Your task to perform on an android device: turn off location history Image 0: 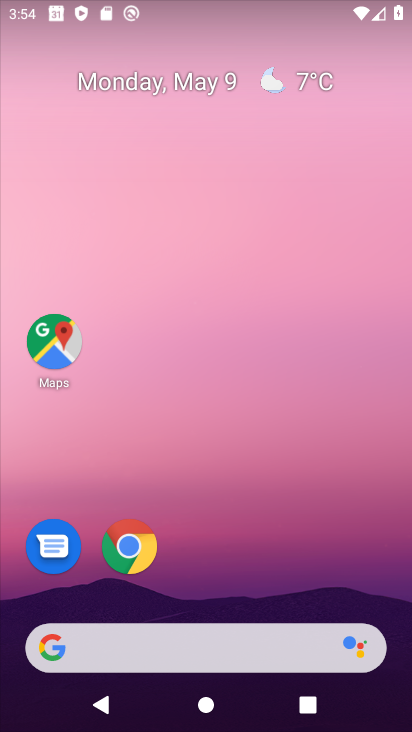
Step 0: drag from (209, 608) to (258, 178)
Your task to perform on an android device: turn off location history Image 1: 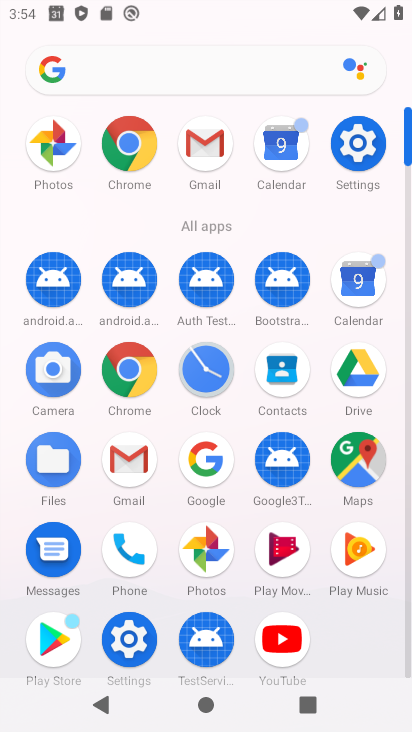
Step 1: click (139, 642)
Your task to perform on an android device: turn off location history Image 2: 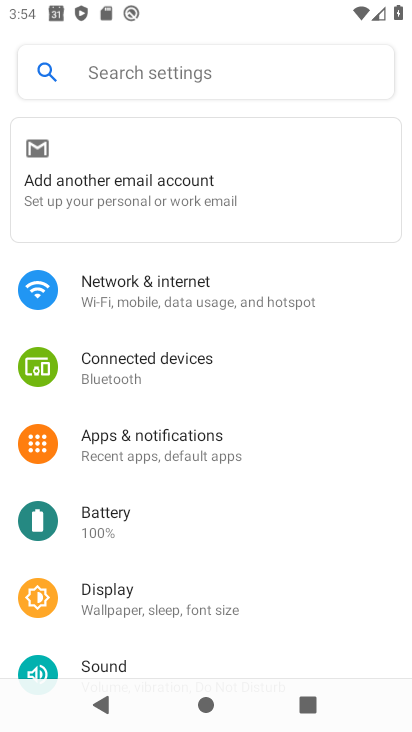
Step 2: drag from (196, 603) to (243, 439)
Your task to perform on an android device: turn off location history Image 3: 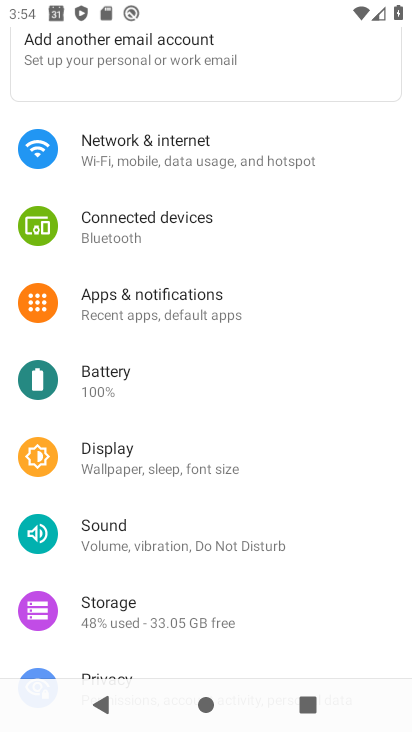
Step 3: drag from (159, 650) to (229, 455)
Your task to perform on an android device: turn off location history Image 4: 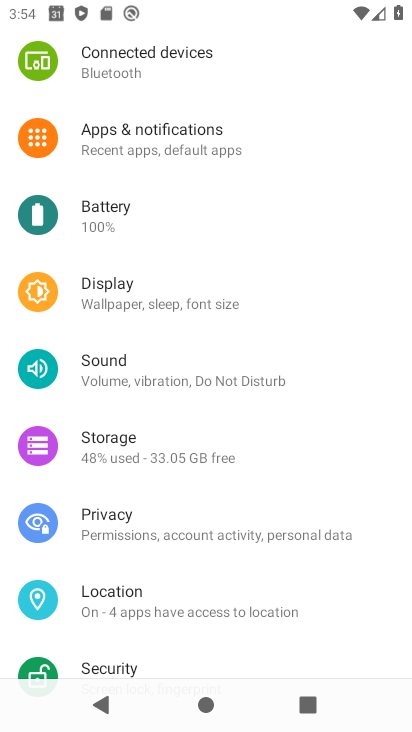
Step 4: click (158, 597)
Your task to perform on an android device: turn off location history Image 5: 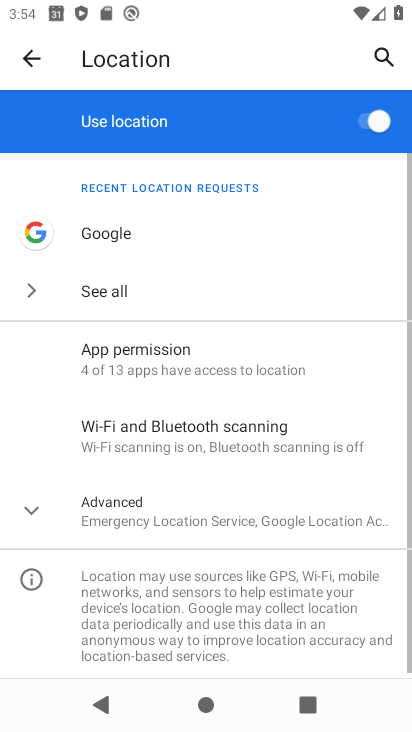
Step 5: click (211, 495)
Your task to perform on an android device: turn off location history Image 6: 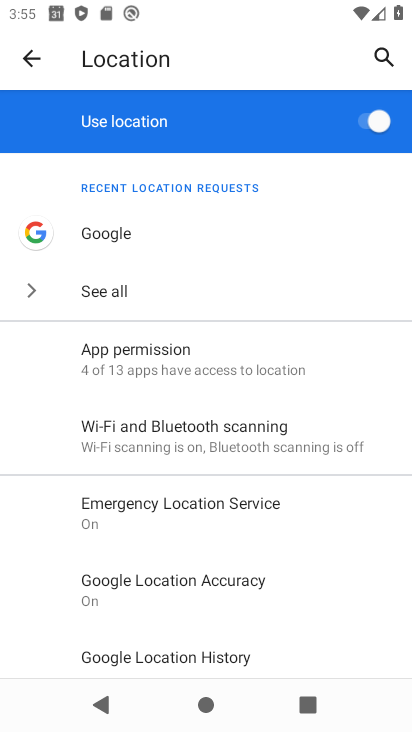
Step 6: drag from (193, 665) to (222, 539)
Your task to perform on an android device: turn off location history Image 7: 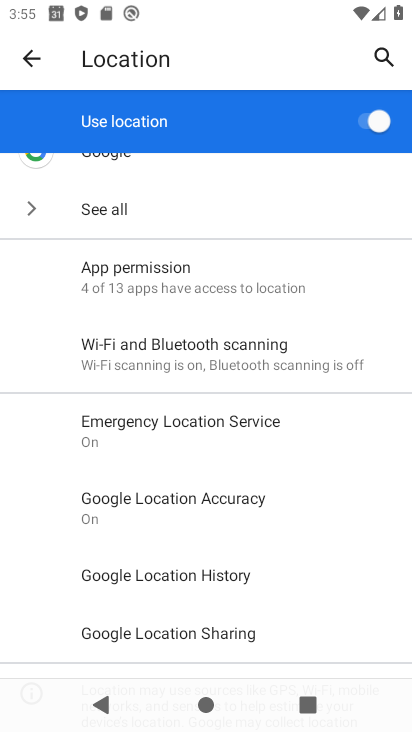
Step 7: click (234, 586)
Your task to perform on an android device: turn off location history Image 8: 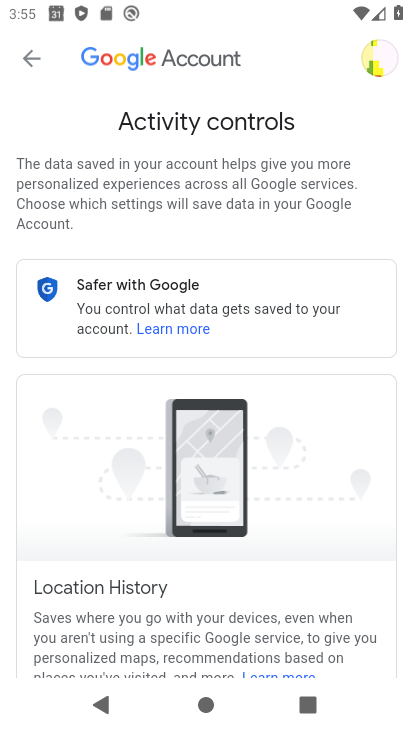
Step 8: task complete